Your task to perform on an android device: Open wifi settings Image 0: 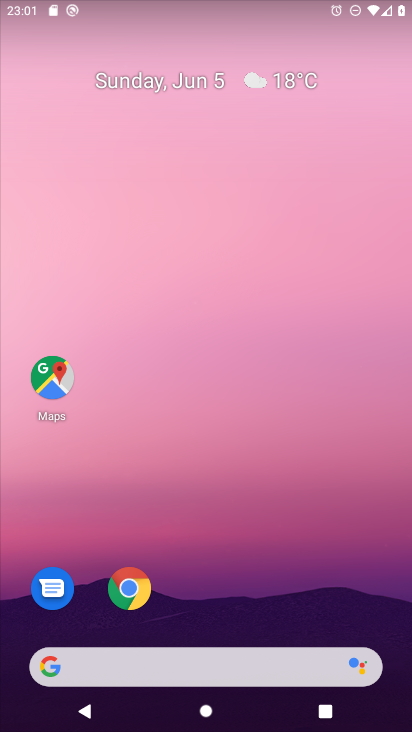
Step 0: drag from (226, 568) to (279, 110)
Your task to perform on an android device: Open wifi settings Image 1: 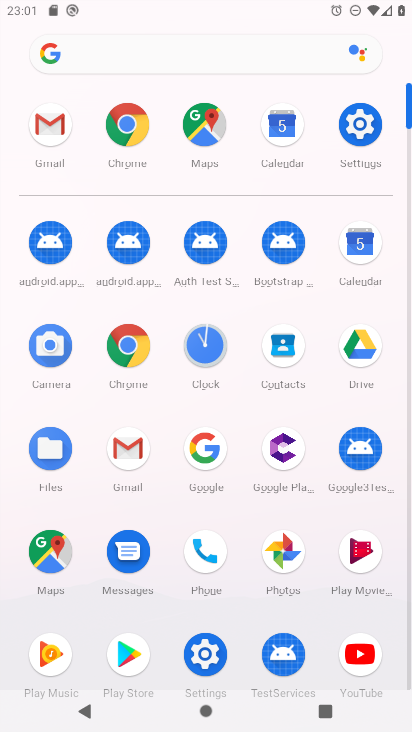
Step 1: click (358, 128)
Your task to perform on an android device: Open wifi settings Image 2: 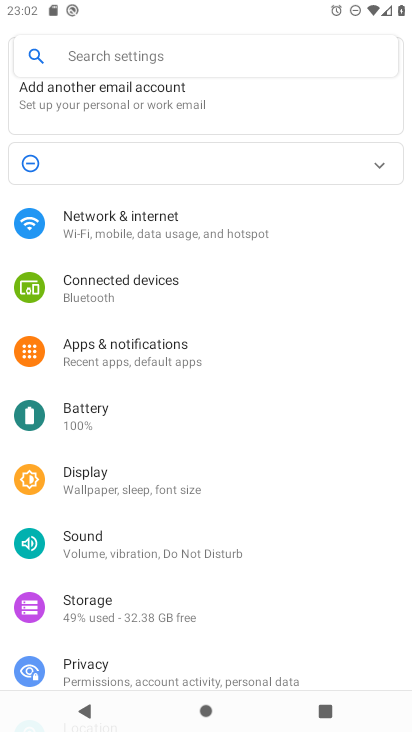
Step 2: drag from (310, 535) to (306, 441)
Your task to perform on an android device: Open wifi settings Image 3: 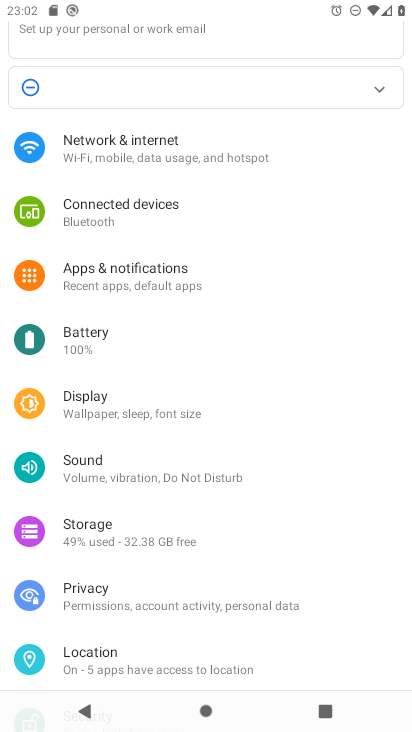
Step 3: click (309, 526)
Your task to perform on an android device: Open wifi settings Image 4: 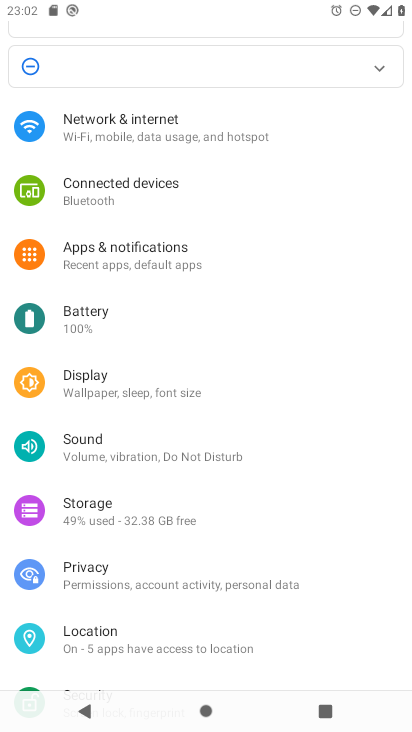
Step 4: click (309, 522)
Your task to perform on an android device: Open wifi settings Image 5: 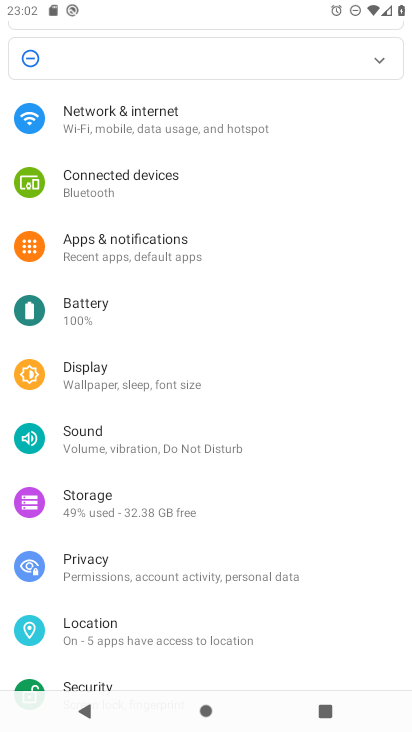
Step 5: drag from (327, 553) to (360, 404)
Your task to perform on an android device: Open wifi settings Image 6: 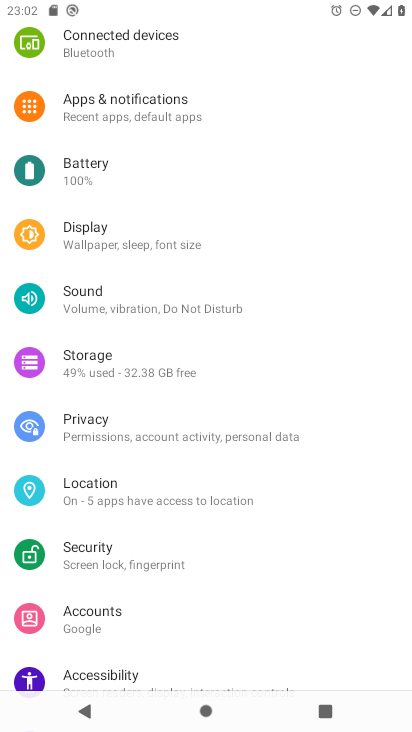
Step 6: drag from (360, 590) to (365, 496)
Your task to perform on an android device: Open wifi settings Image 7: 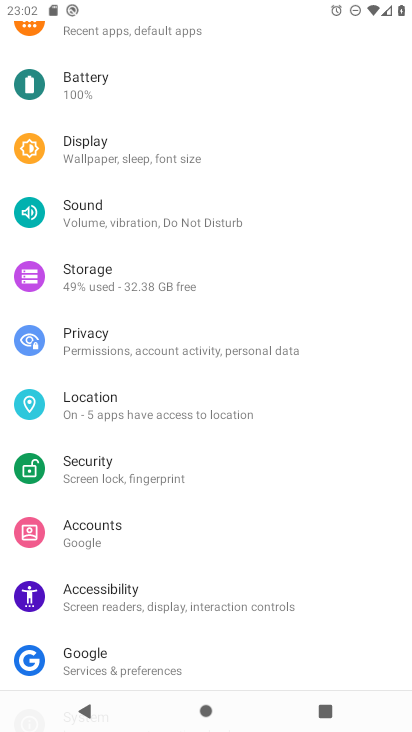
Step 7: drag from (359, 522) to (368, 463)
Your task to perform on an android device: Open wifi settings Image 8: 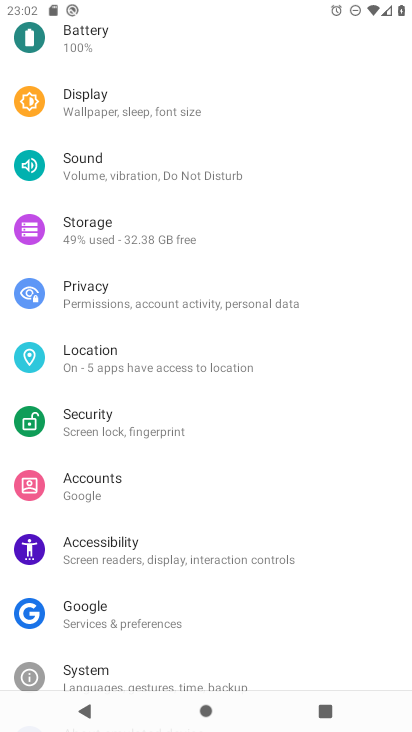
Step 8: drag from (305, 195) to (310, 305)
Your task to perform on an android device: Open wifi settings Image 9: 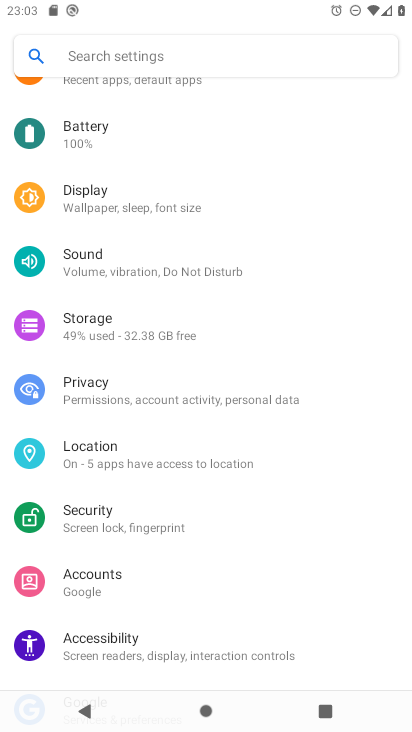
Step 9: drag from (315, 206) to (324, 366)
Your task to perform on an android device: Open wifi settings Image 10: 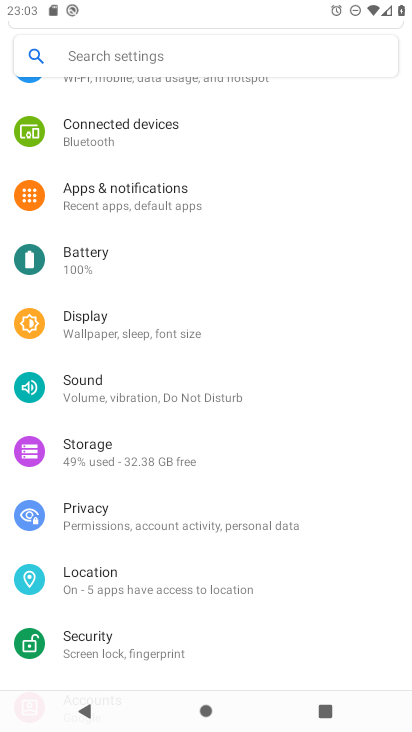
Step 10: click (316, 227)
Your task to perform on an android device: Open wifi settings Image 11: 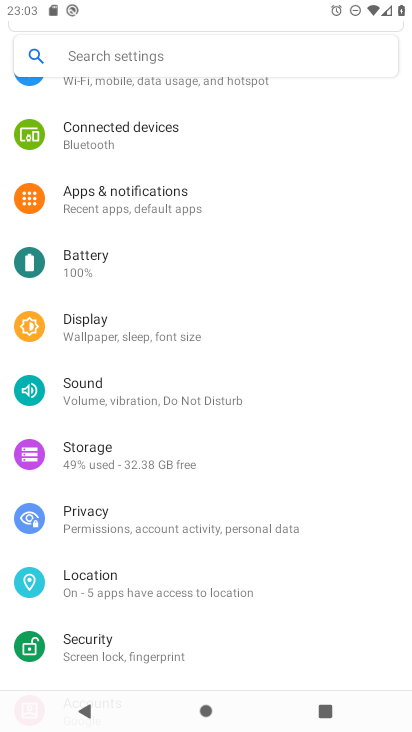
Step 11: drag from (238, 173) to (279, 334)
Your task to perform on an android device: Open wifi settings Image 12: 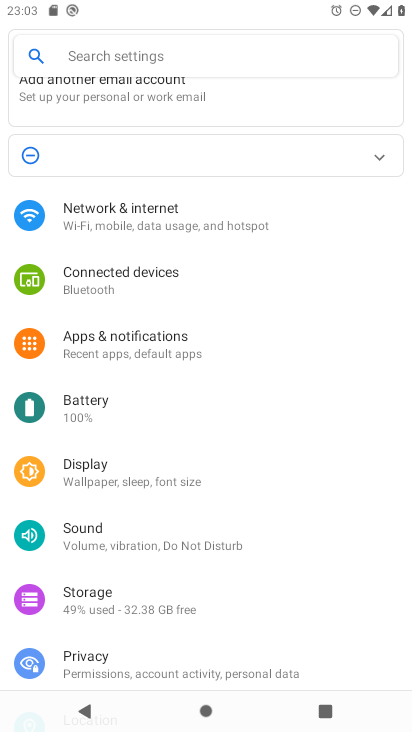
Step 12: click (226, 215)
Your task to perform on an android device: Open wifi settings Image 13: 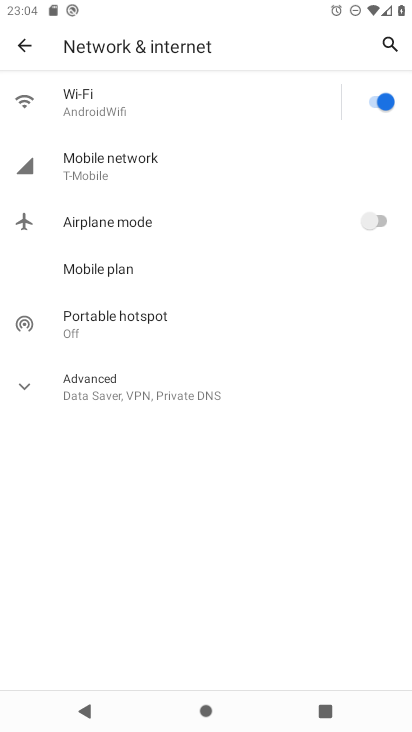
Step 13: click (83, 113)
Your task to perform on an android device: Open wifi settings Image 14: 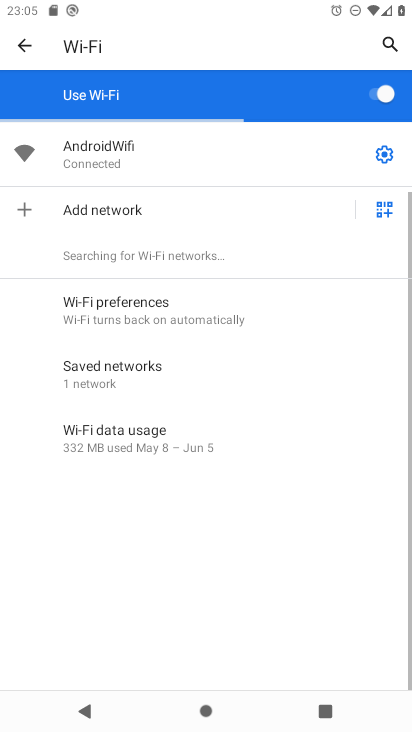
Step 14: task complete